Your task to perform on an android device: turn off javascript in the chrome app Image 0: 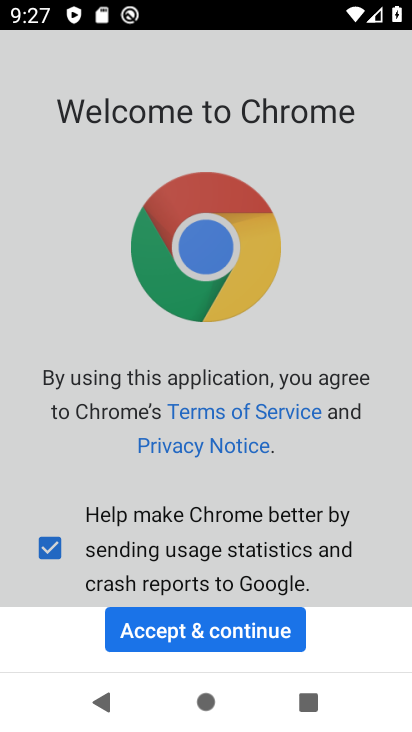
Step 0: click (189, 45)
Your task to perform on an android device: turn off javascript in the chrome app Image 1: 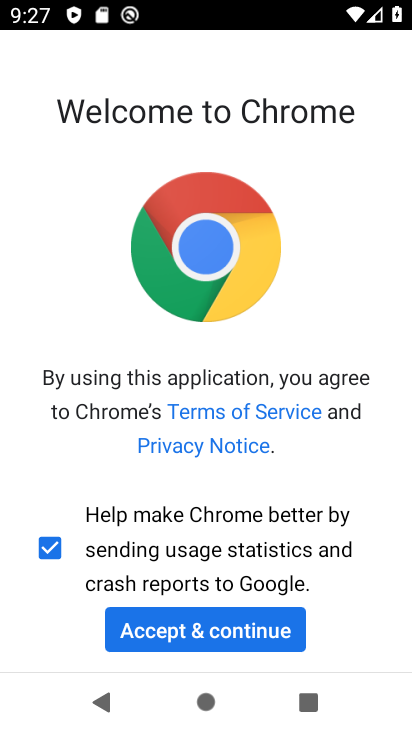
Step 1: click (229, 629)
Your task to perform on an android device: turn off javascript in the chrome app Image 2: 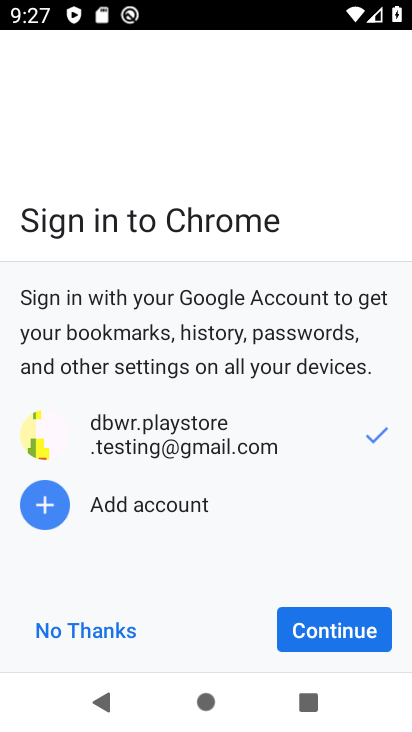
Step 2: click (228, 630)
Your task to perform on an android device: turn off javascript in the chrome app Image 3: 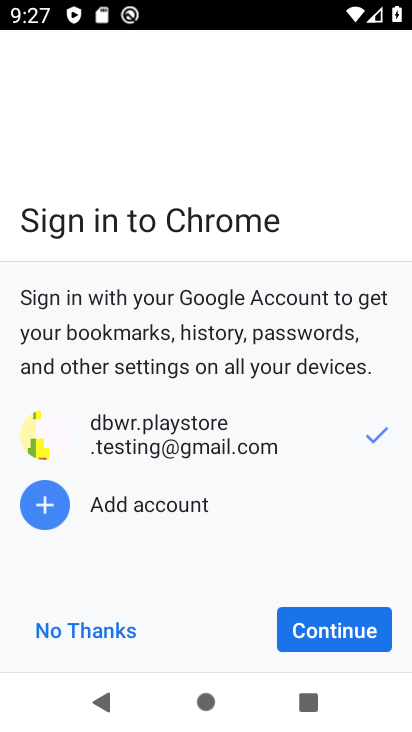
Step 3: click (360, 628)
Your task to perform on an android device: turn off javascript in the chrome app Image 4: 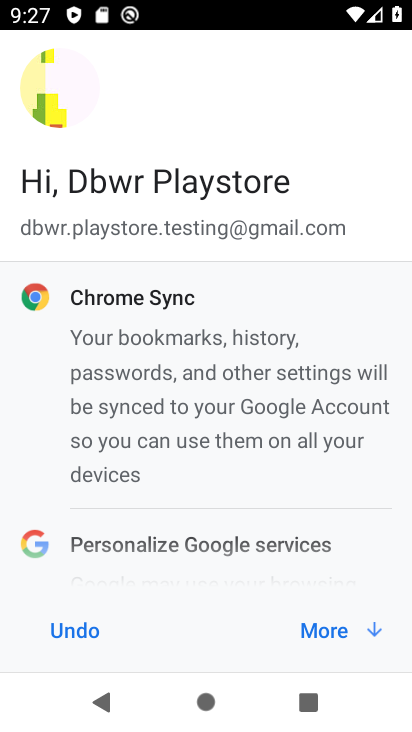
Step 4: click (335, 627)
Your task to perform on an android device: turn off javascript in the chrome app Image 5: 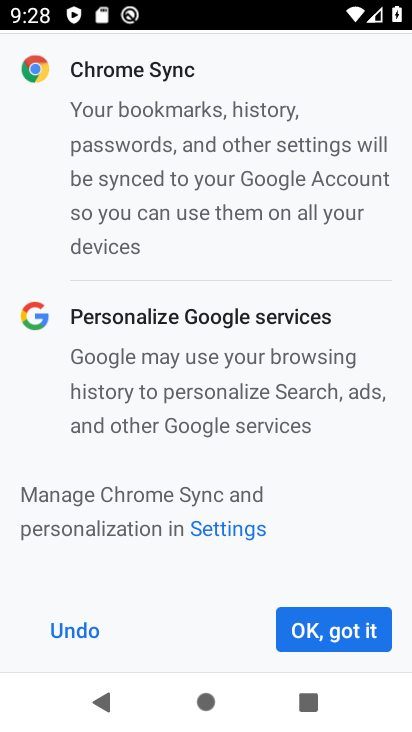
Step 5: click (338, 629)
Your task to perform on an android device: turn off javascript in the chrome app Image 6: 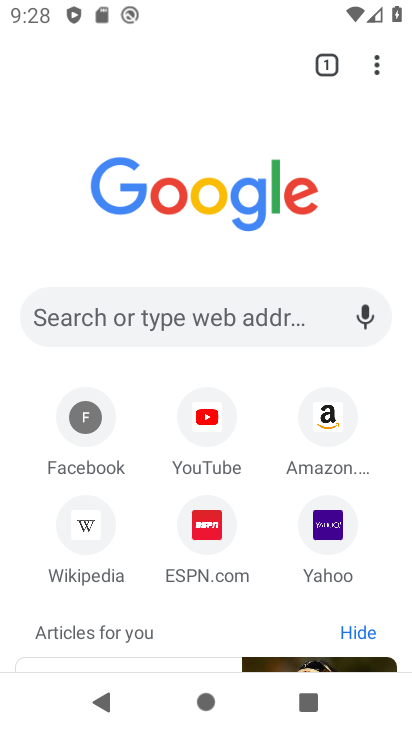
Step 6: click (112, 317)
Your task to perform on an android device: turn off javascript in the chrome app Image 7: 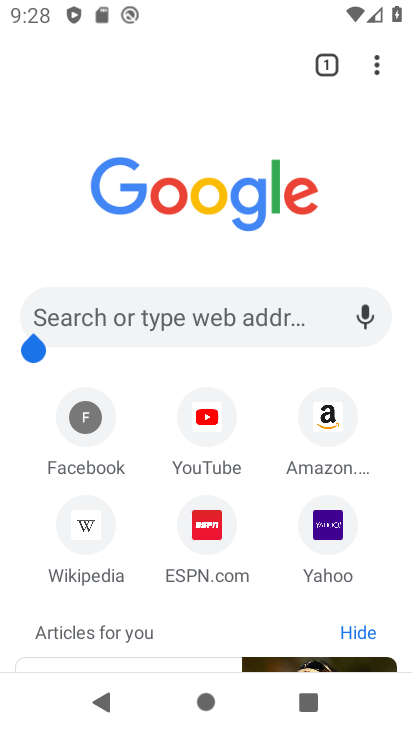
Step 7: click (104, 317)
Your task to perform on an android device: turn off javascript in the chrome app Image 8: 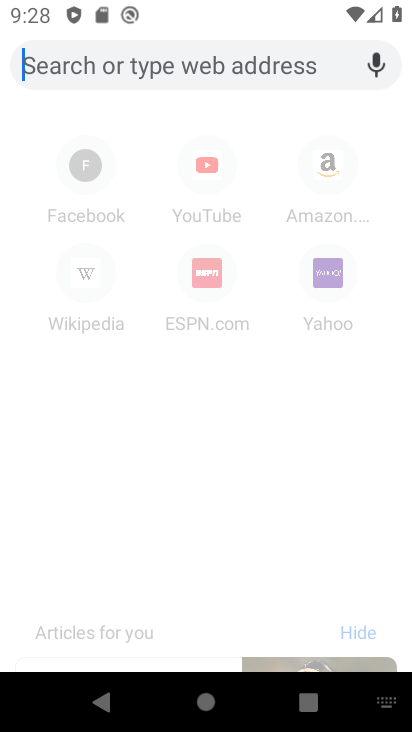
Step 8: click (74, 63)
Your task to perform on an android device: turn off javascript in the chrome app Image 9: 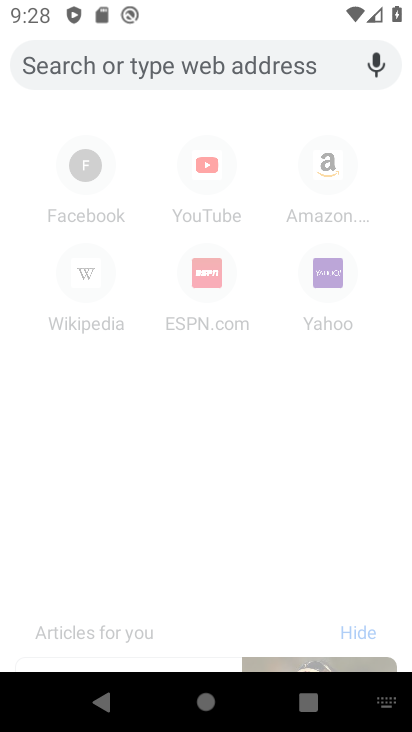
Step 9: click (74, 63)
Your task to perform on an android device: turn off javascript in the chrome app Image 10: 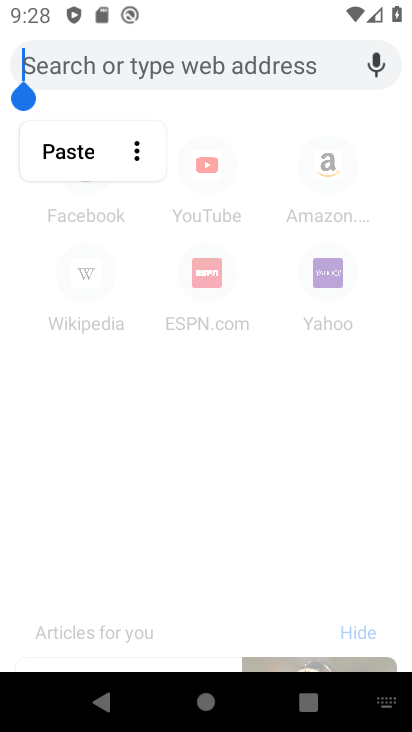
Step 10: click (52, 61)
Your task to perform on an android device: turn off javascript in the chrome app Image 11: 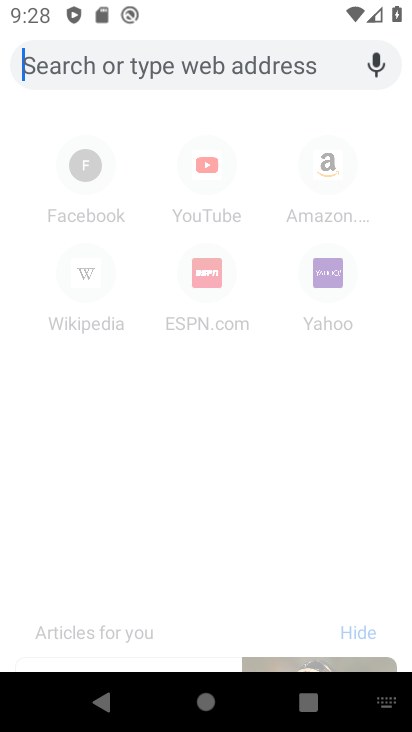
Step 11: press home button
Your task to perform on an android device: turn off javascript in the chrome app Image 12: 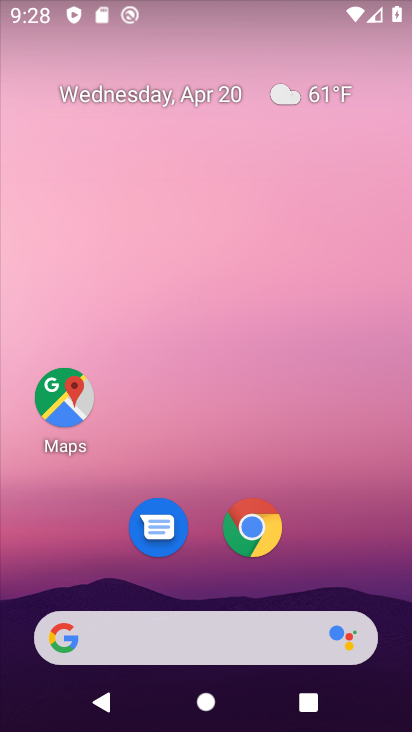
Step 12: drag from (221, 206) to (228, 54)
Your task to perform on an android device: turn off javascript in the chrome app Image 13: 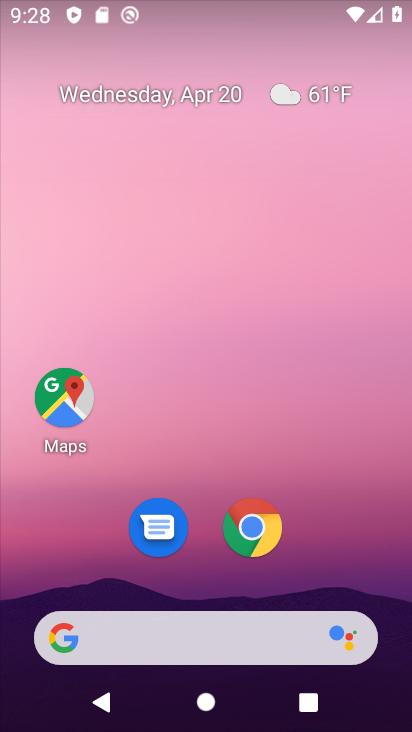
Step 13: drag from (334, 540) to (234, 211)
Your task to perform on an android device: turn off javascript in the chrome app Image 14: 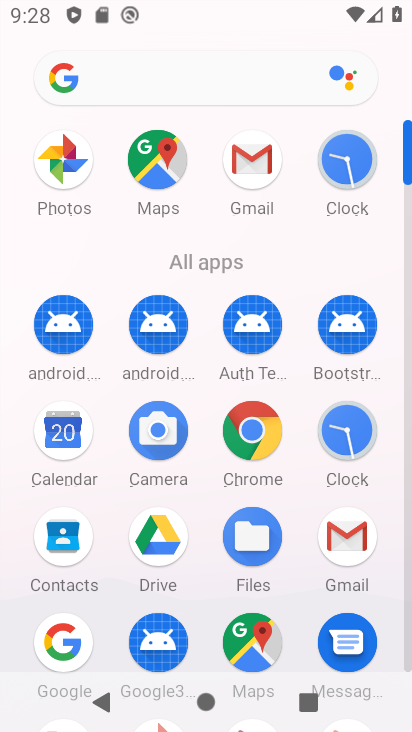
Step 14: click (246, 426)
Your task to perform on an android device: turn off javascript in the chrome app Image 15: 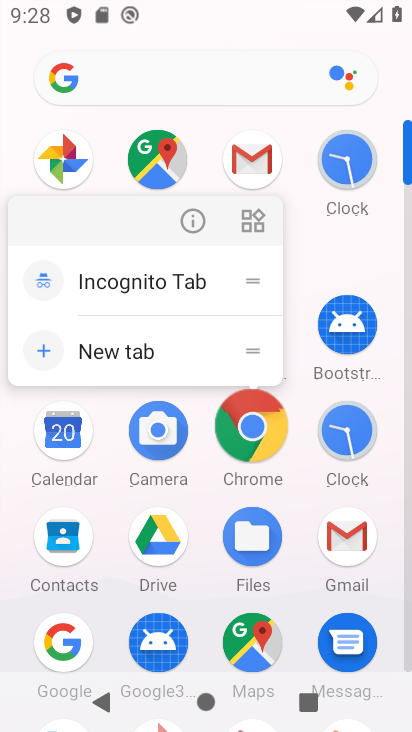
Step 15: click (243, 420)
Your task to perform on an android device: turn off javascript in the chrome app Image 16: 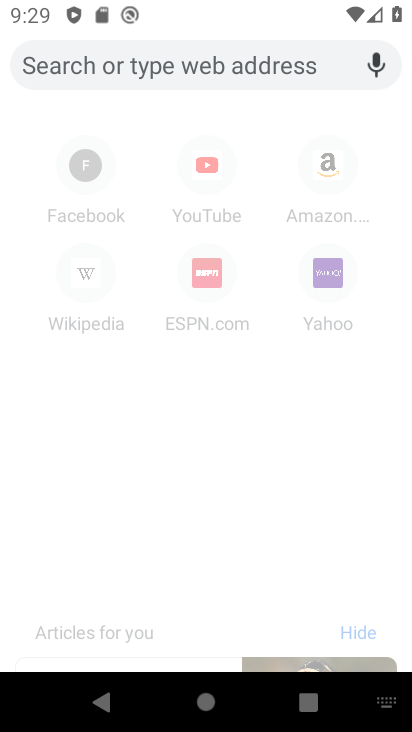
Step 16: click (253, 543)
Your task to perform on an android device: turn off javascript in the chrome app Image 17: 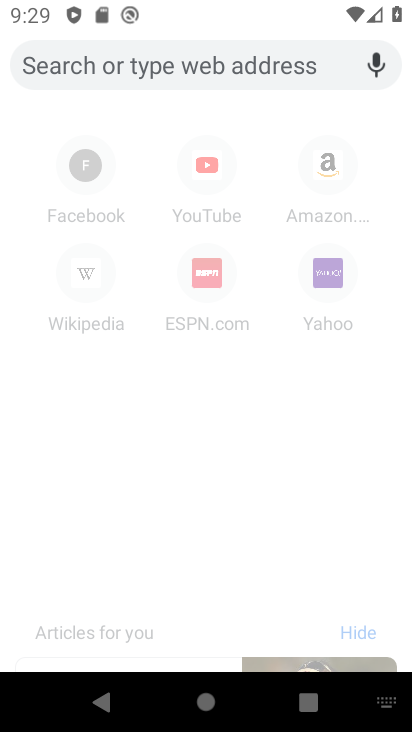
Step 17: click (251, 533)
Your task to perform on an android device: turn off javascript in the chrome app Image 18: 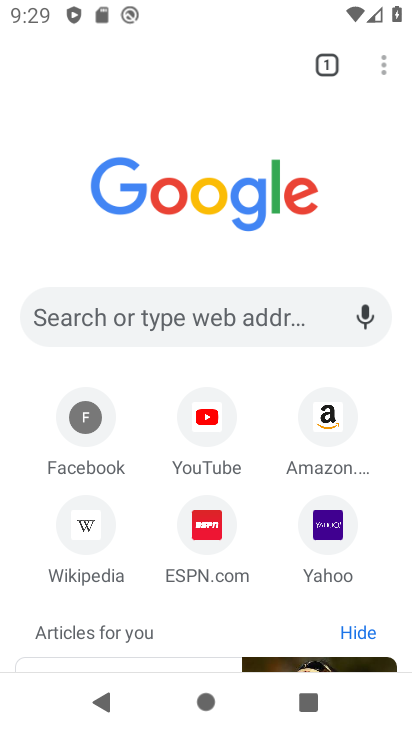
Step 18: click (246, 525)
Your task to perform on an android device: turn off javascript in the chrome app Image 19: 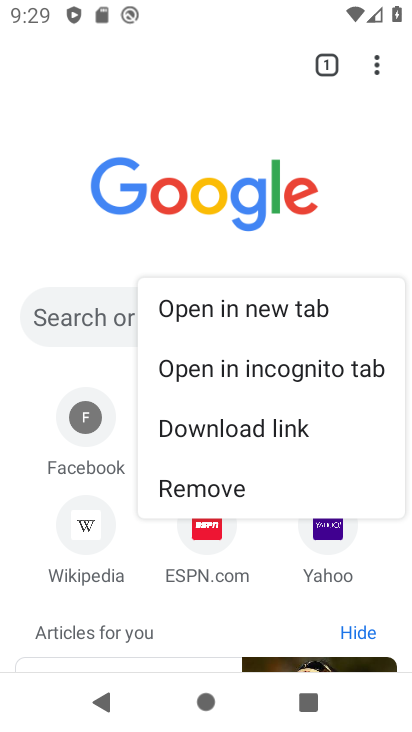
Step 19: drag from (372, 58) to (323, 396)
Your task to perform on an android device: turn off javascript in the chrome app Image 20: 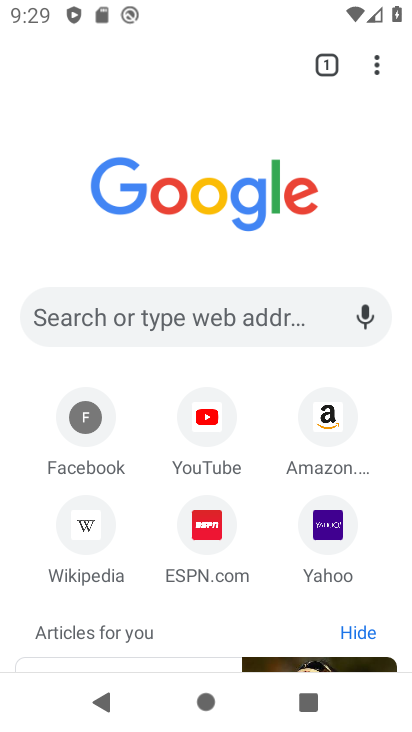
Step 20: drag from (372, 65) to (239, 557)
Your task to perform on an android device: turn off javascript in the chrome app Image 21: 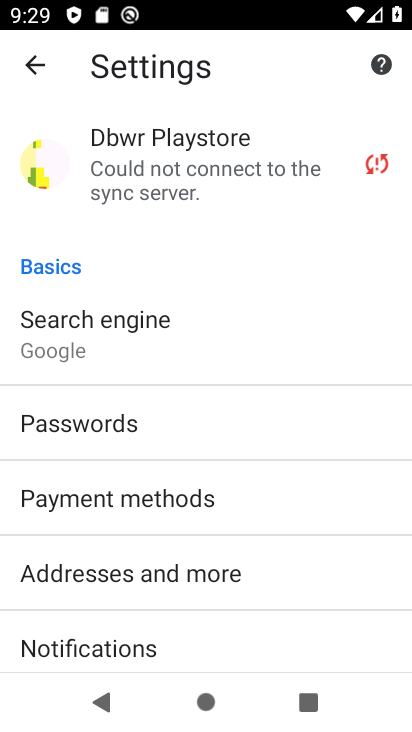
Step 21: drag from (147, 540) to (113, 114)
Your task to perform on an android device: turn off javascript in the chrome app Image 22: 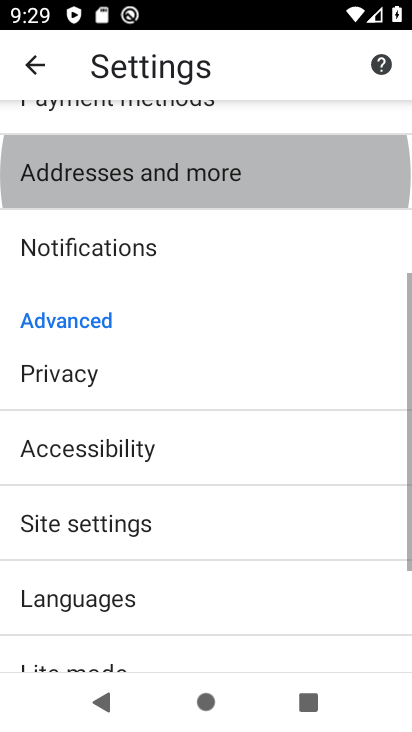
Step 22: drag from (123, 481) to (105, 150)
Your task to perform on an android device: turn off javascript in the chrome app Image 23: 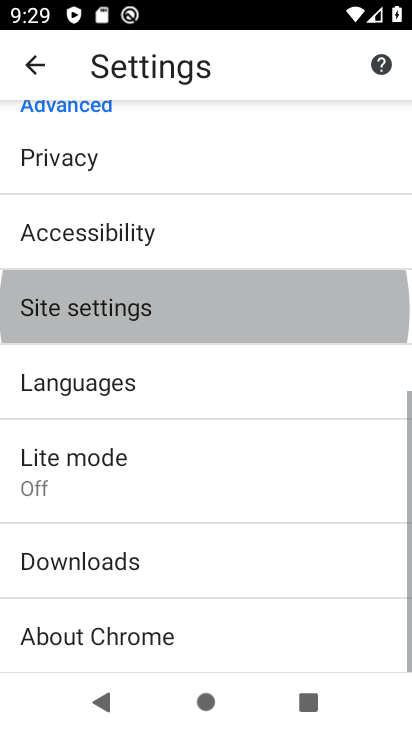
Step 23: drag from (142, 514) to (105, 81)
Your task to perform on an android device: turn off javascript in the chrome app Image 24: 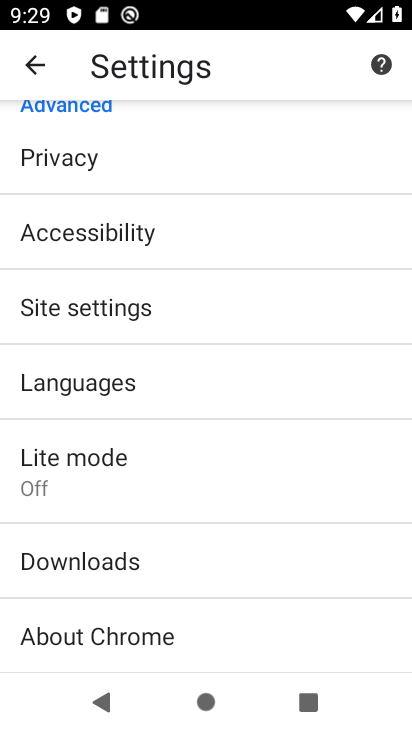
Step 24: drag from (185, 585) to (100, 91)
Your task to perform on an android device: turn off javascript in the chrome app Image 25: 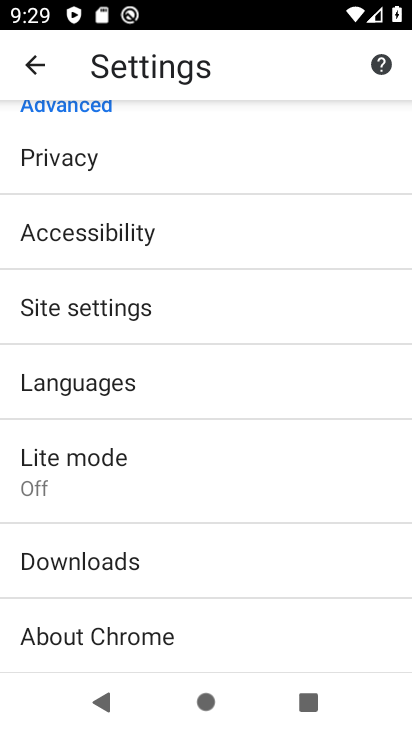
Step 25: drag from (159, 532) to (110, 156)
Your task to perform on an android device: turn off javascript in the chrome app Image 26: 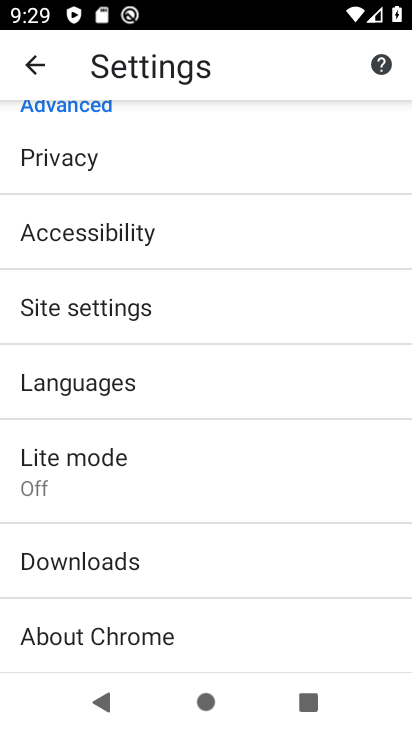
Step 26: click (75, 304)
Your task to perform on an android device: turn off javascript in the chrome app Image 27: 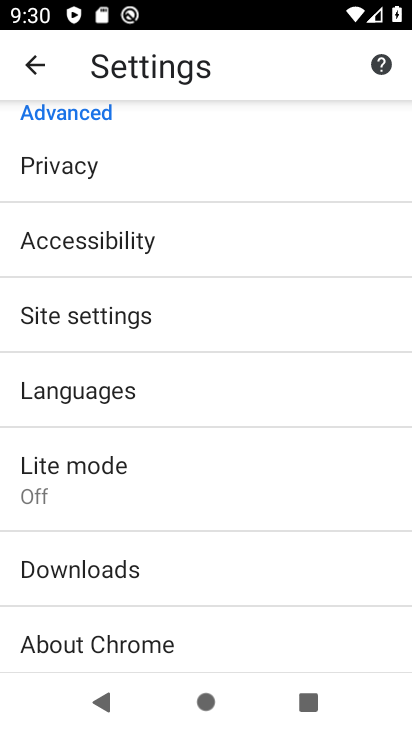
Step 27: click (70, 313)
Your task to perform on an android device: turn off javascript in the chrome app Image 28: 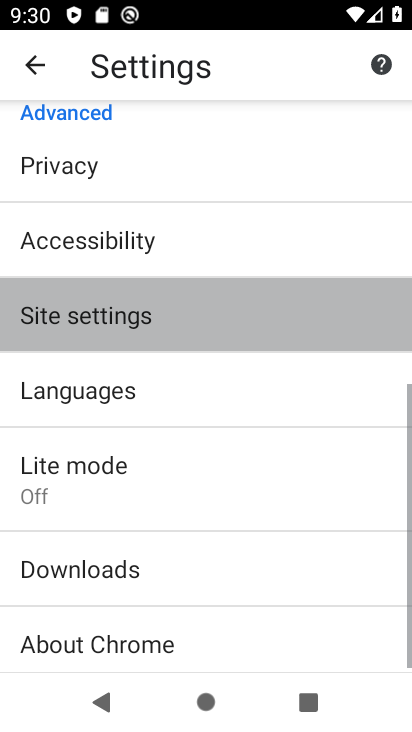
Step 28: click (70, 313)
Your task to perform on an android device: turn off javascript in the chrome app Image 29: 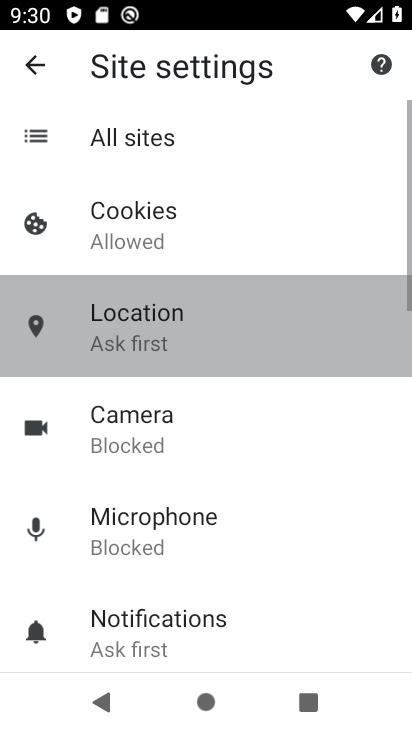
Step 29: click (71, 312)
Your task to perform on an android device: turn off javascript in the chrome app Image 30: 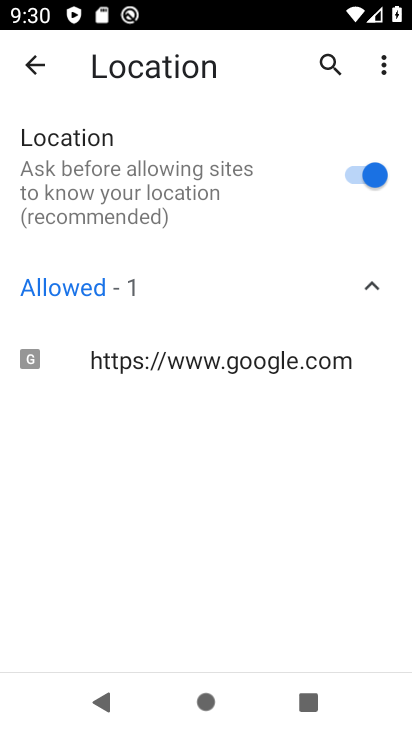
Step 30: click (28, 63)
Your task to perform on an android device: turn off javascript in the chrome app Image 31: 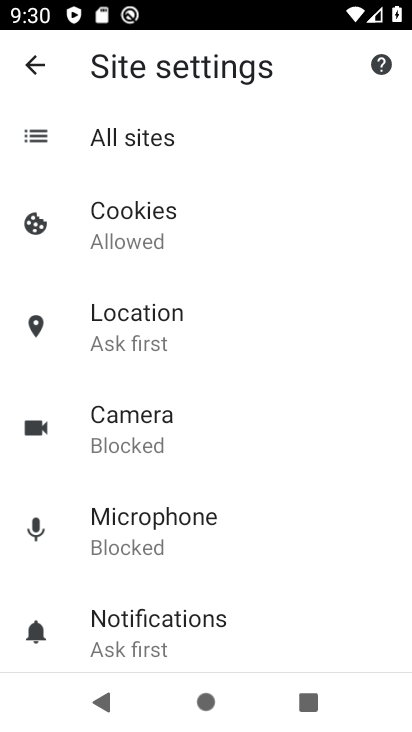
Step 31: drag from (241, 439) to (226, 171)
Your task to perform on an android device: turn off javascript in the chrome app Image 32: 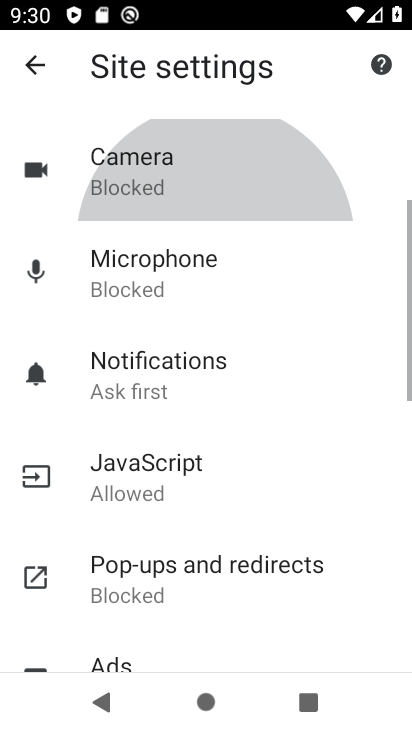
Step 32: drag from (166, 292) to (150, 158)
Your task to perform on an android device: turn off javascript in the chrome app Image 33: 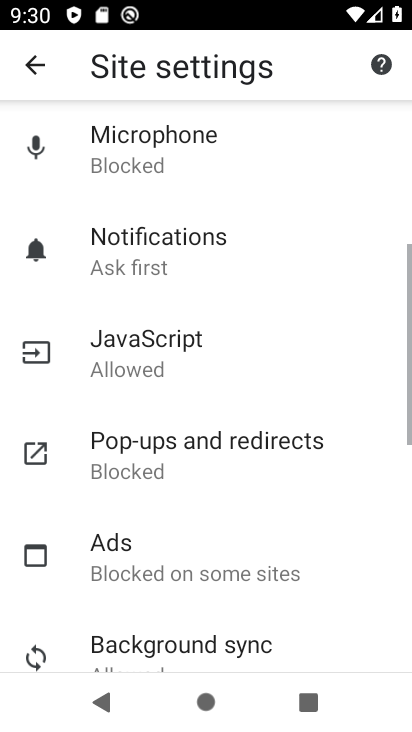
Step 33: click (125, 354)
Your task to perform on an android device: turn off javascript in the chrome app Image 34: 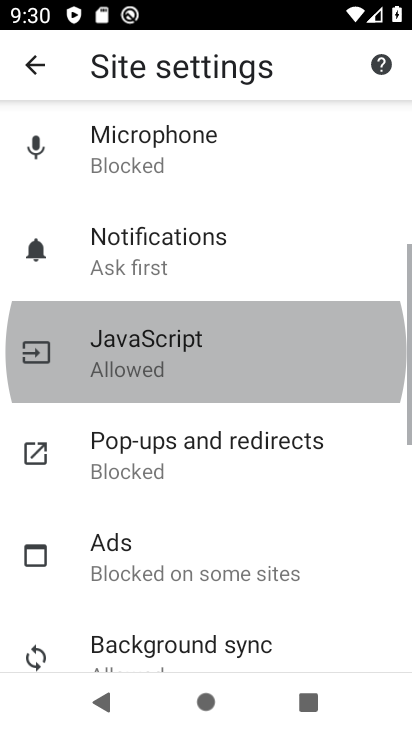
Step 34: click (125, 354)
Your task to perform on an android device: turn off javascript in the chrome app Image 35: 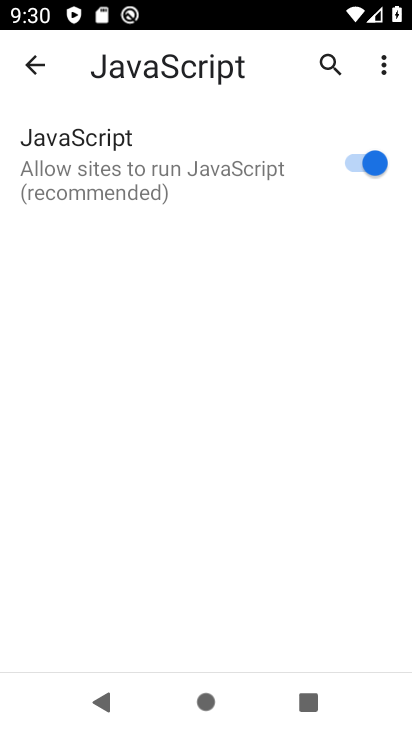
Step 35: click (378, 163)
Your task to perform on an android device: turn off javascript in the chrome app Image 36: 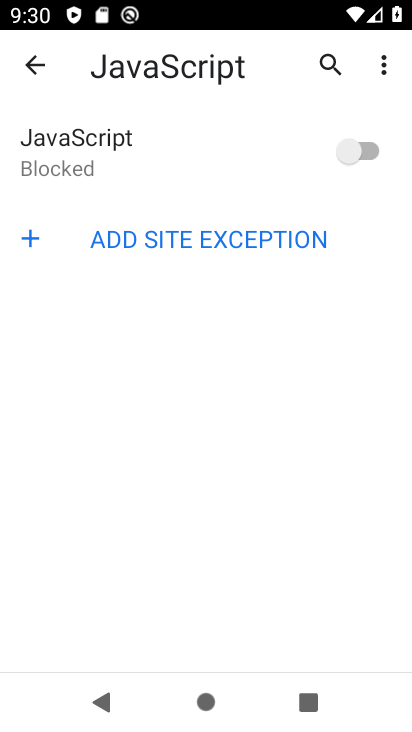
Step 36: task complete